Your task to perform on an android device: delete location history Image 0: 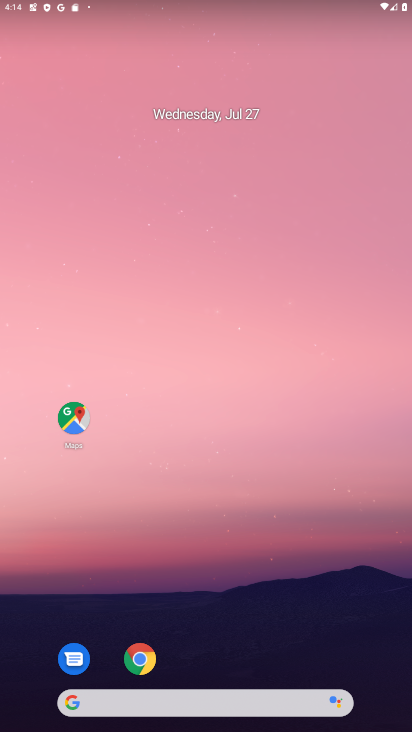
Step 0: click (69, 424)
Your task to perform on an android device: delete location history Image 1: 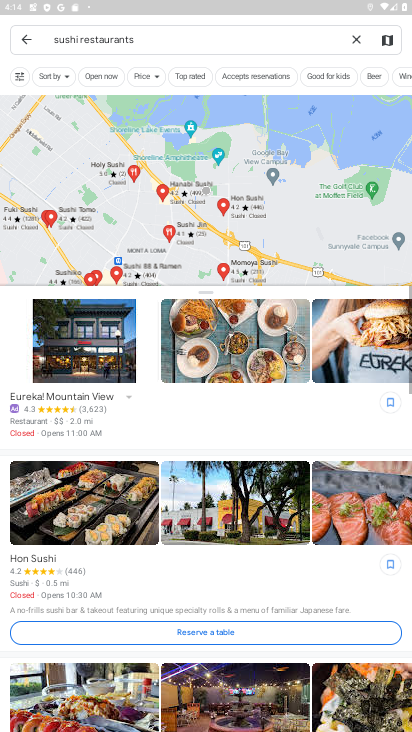
Step 1: click (27, 34)
Your task to perform on an android device: delete location history Image 2: 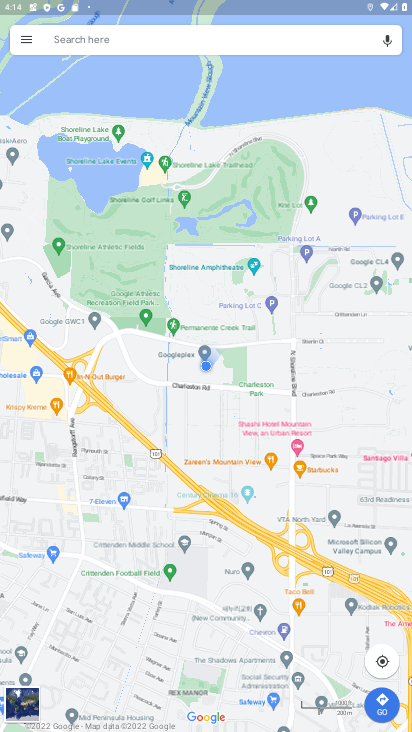
Step 2: click (26, 40)
Your task to perform on an android device: delete location history Image 3: 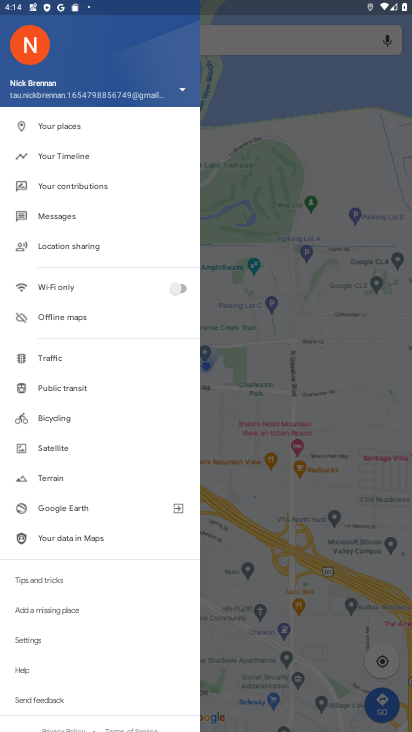
Step 3: click (86, 163)
Your task to perform on an android device: delete location history Image 4: 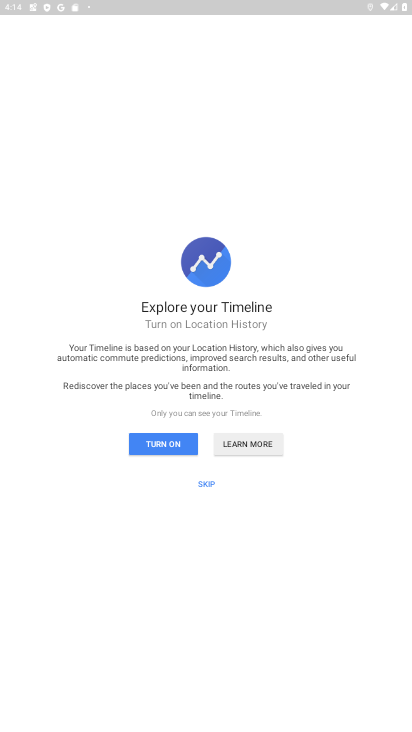
Step 4: click (203, 481)
Your task to perform on an android device: delete location history Image 5: 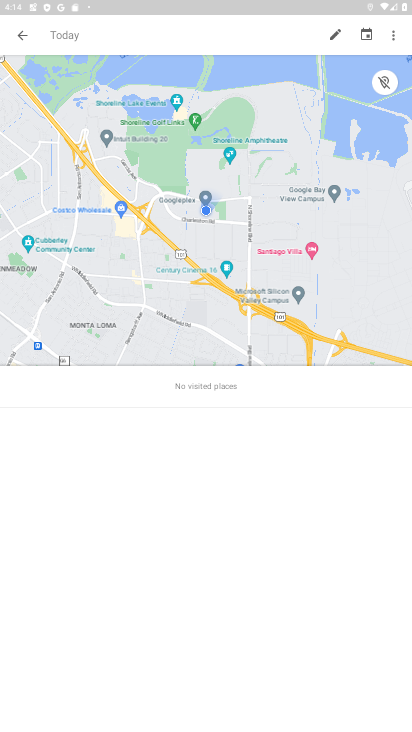
Step 5: click (391, 34)
Your task to perform on an android device: delete location history Image 6: 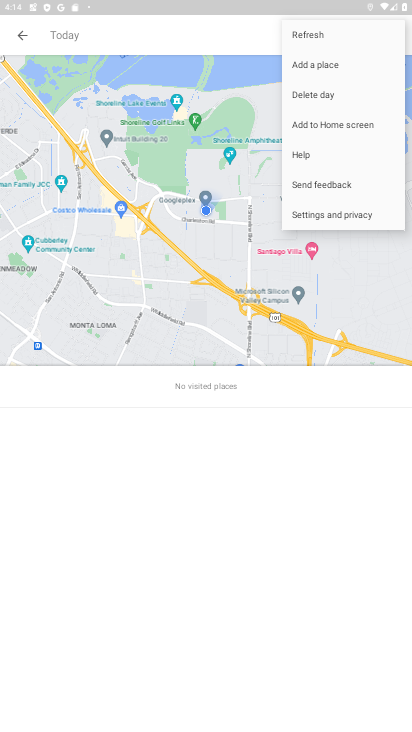
Step 6: click (354, 207)
Your task to perform on an android device: delete location history Image 7: 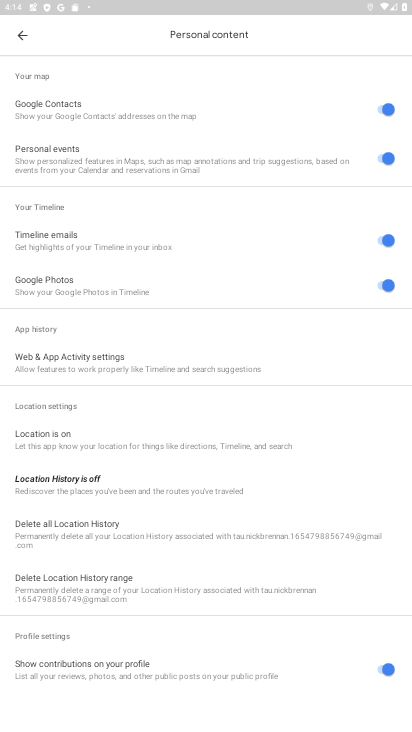
Step 7: click (173, 536)
Your task to perform on an android device: delete location history Image 8: 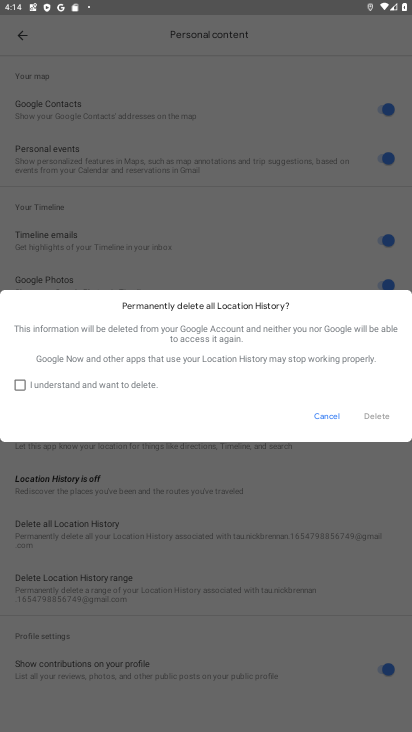
Step 8: click (148, 392)
Your task to perform on an android device: delete location history Image 9: 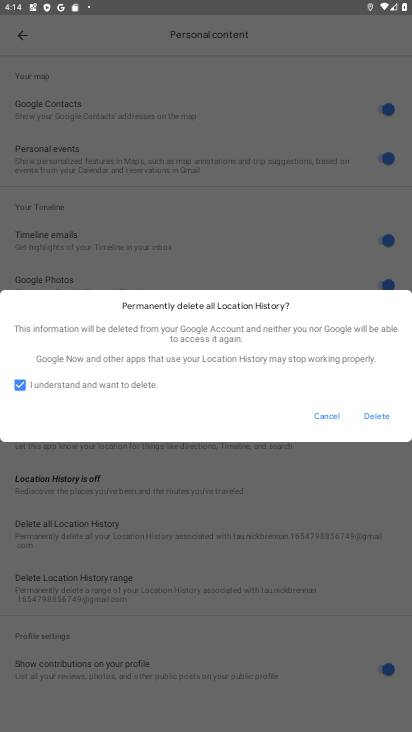
Step 9: click (375, 423)
Your task to perform on an android device: delete location history Image 10: 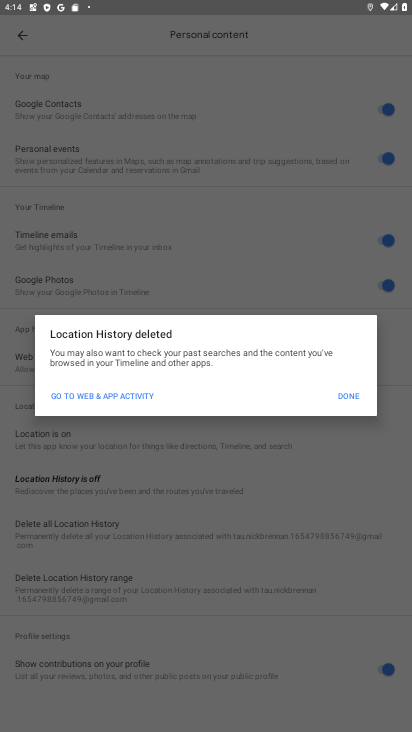
Step 10: click (346, 400)
Your task to perform on an android device: delete location history Image 11: 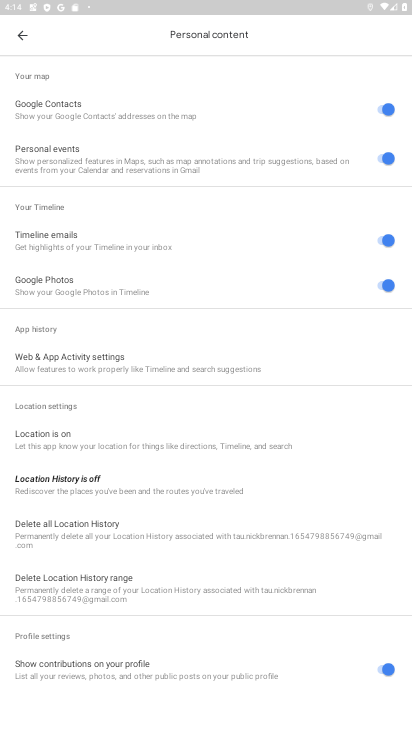
Step 11: task complete